Your task to perform on an android device: Search for pizza restaurants on Maps Image 0: 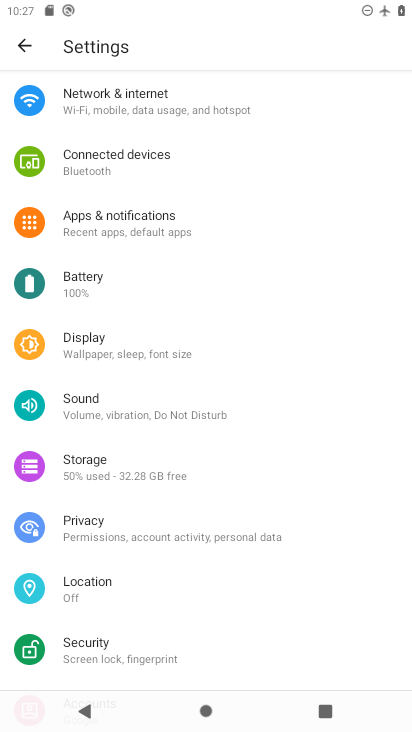
Step 0: press home button
Your task to perform on an android device: Search for pizza restaurants on Maps Image 1: 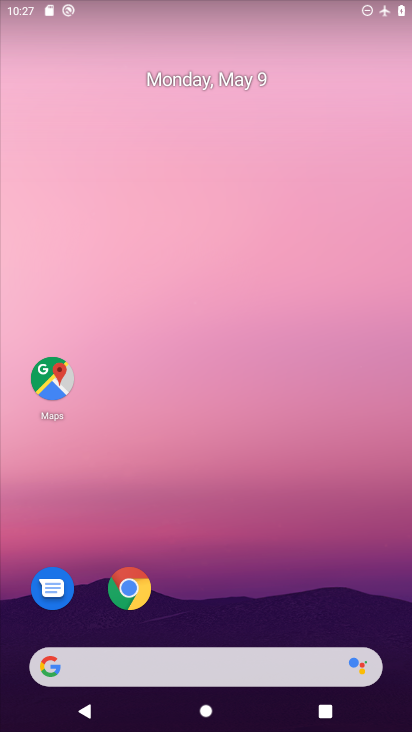
Step 1: click (45, 386)
Your task to perform on an android device: Search for pizza restaurants on Maps Image 2: 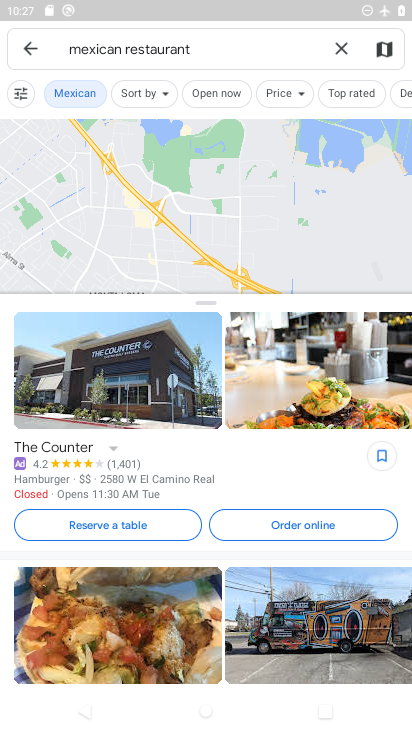
Step 2: click (339, 52)
Your task to perform on an android device: Search for pizza restaurants on Maps Image 3: 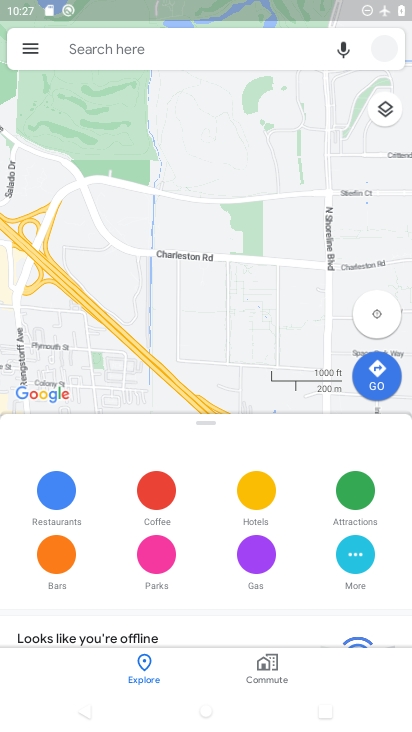
Step 3: click (288, 52)
Your task to perform on an android device: Search for pizza restaurants on Maps Image 4: 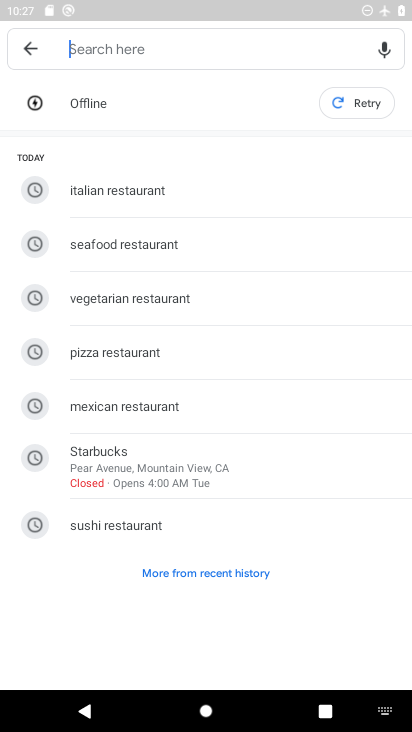
Step 4: click (238, 351)
Your task to perform on an android device: Search for pizza restaurants on Maps Image 5: 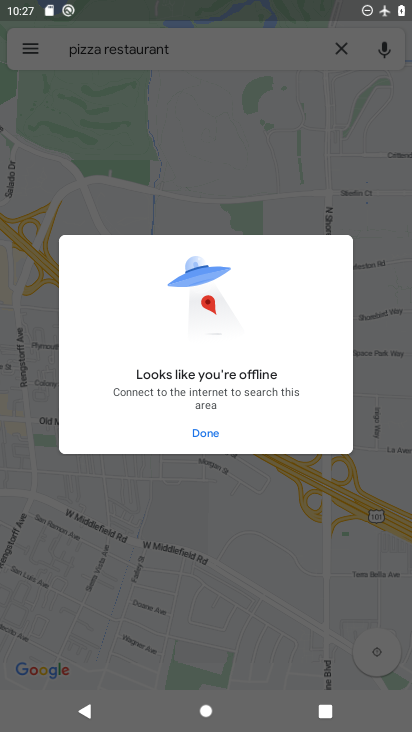
Step 5: task complete